Your task to perform on an android device: toggle notification dots Image 0: 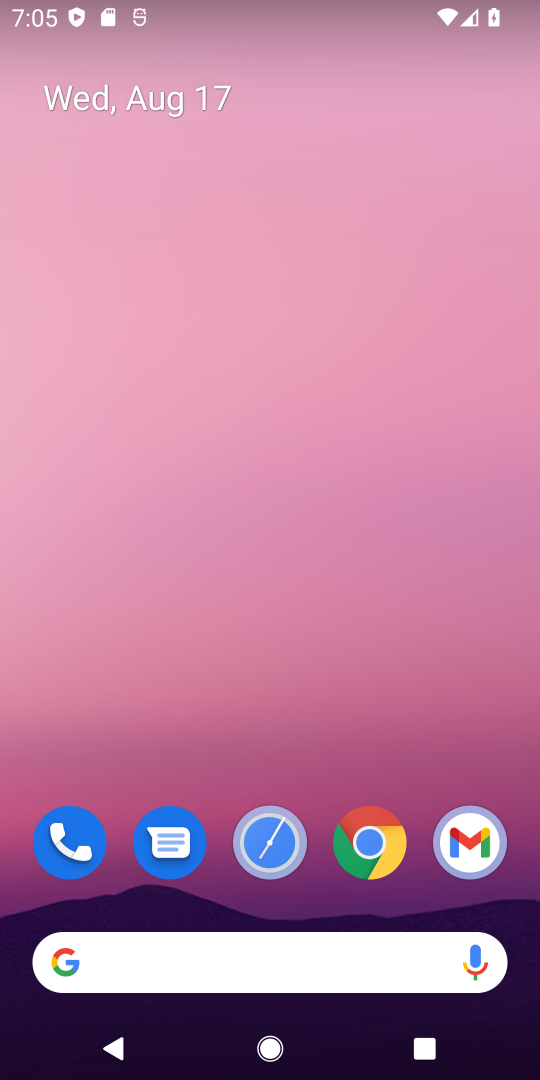
Step 0: drag from (268, 730) to (261, 9)
Your task to perform on an android device: toggle notification dots Image 1: 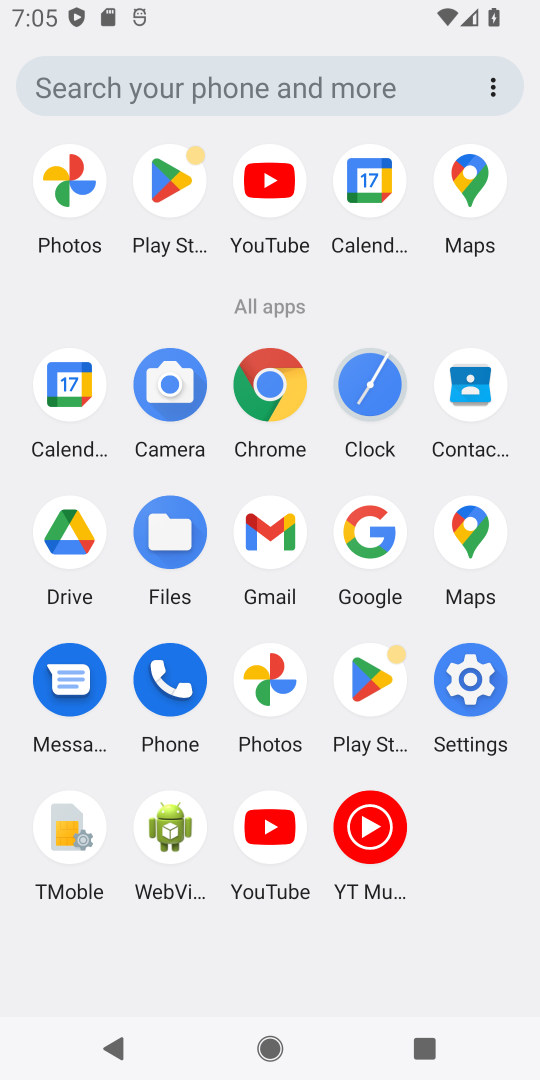
Step 1: click (484, 682)
Your task to perform on an android device: toggle notification dots Image 2: 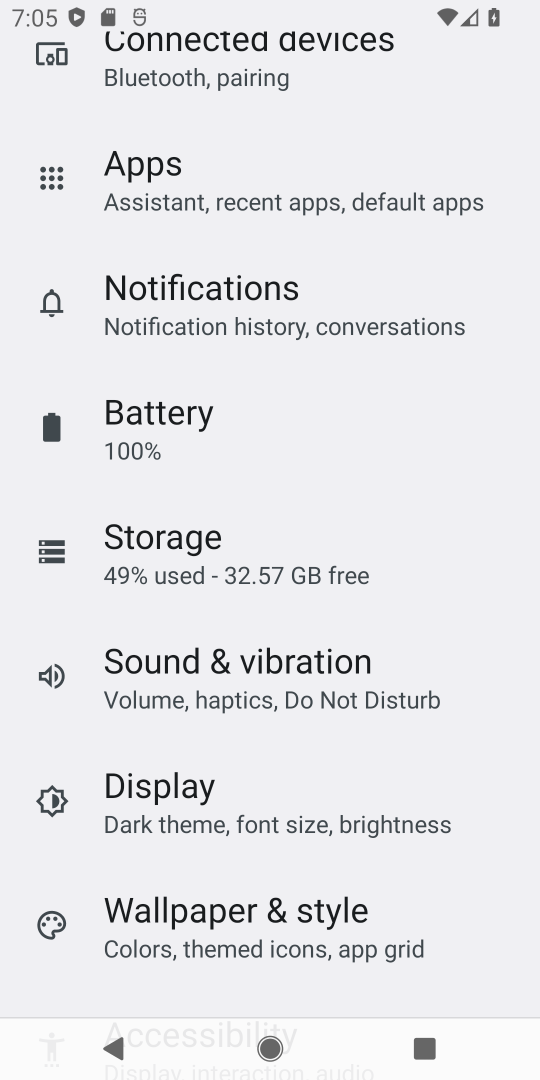
Step 2: click (307, 319)
Your task to perform on an android device: toggle notification dots Image 3: 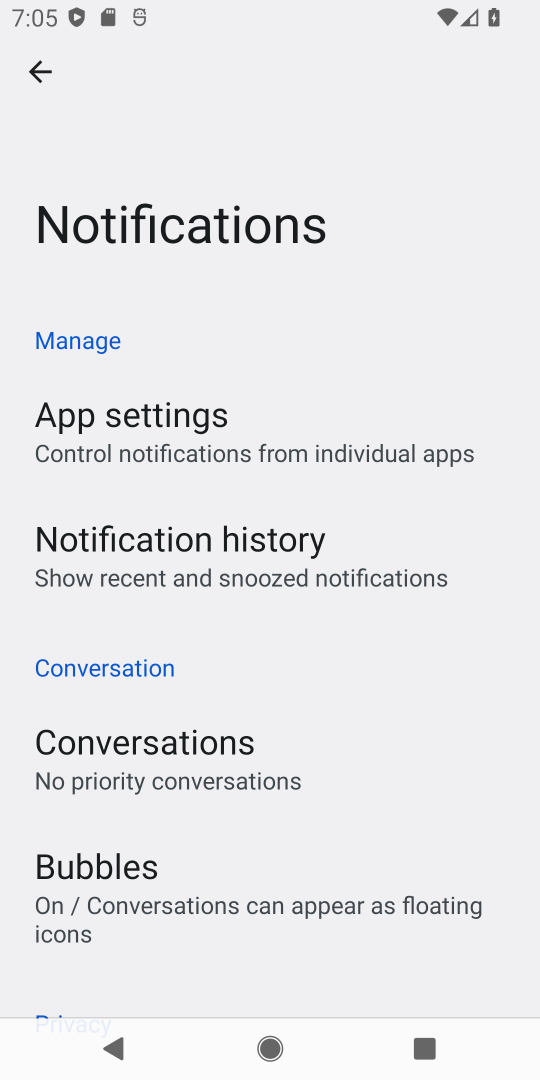
Step 3: drag from (325, 811) to (265, 98)
Your task to perform on an android device: toggle notification dots Image 4: 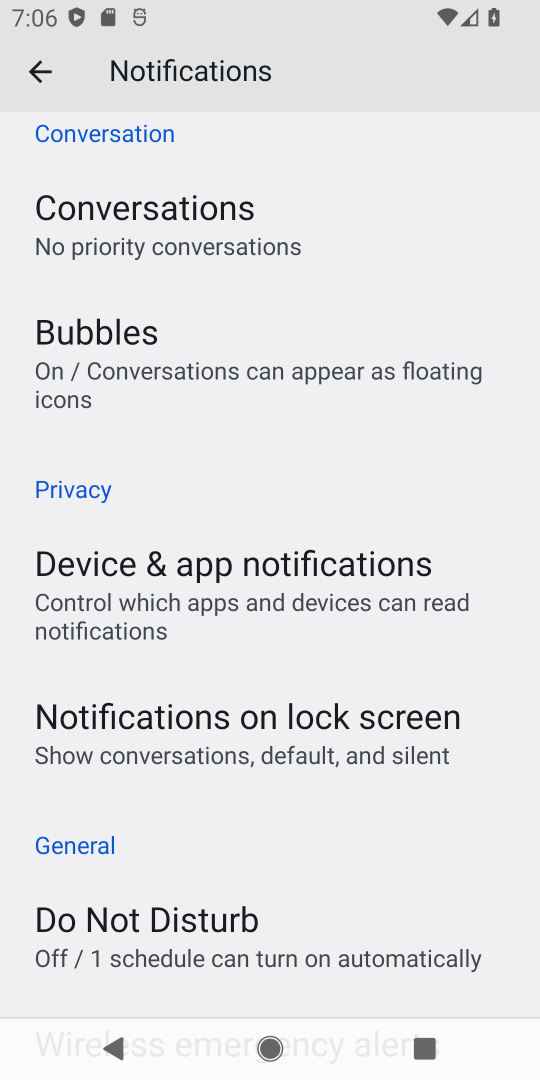
Step 4: drag from (238, 762) to (256, 116)
Your task to perform on an android device: toggle notification dots Image 5: 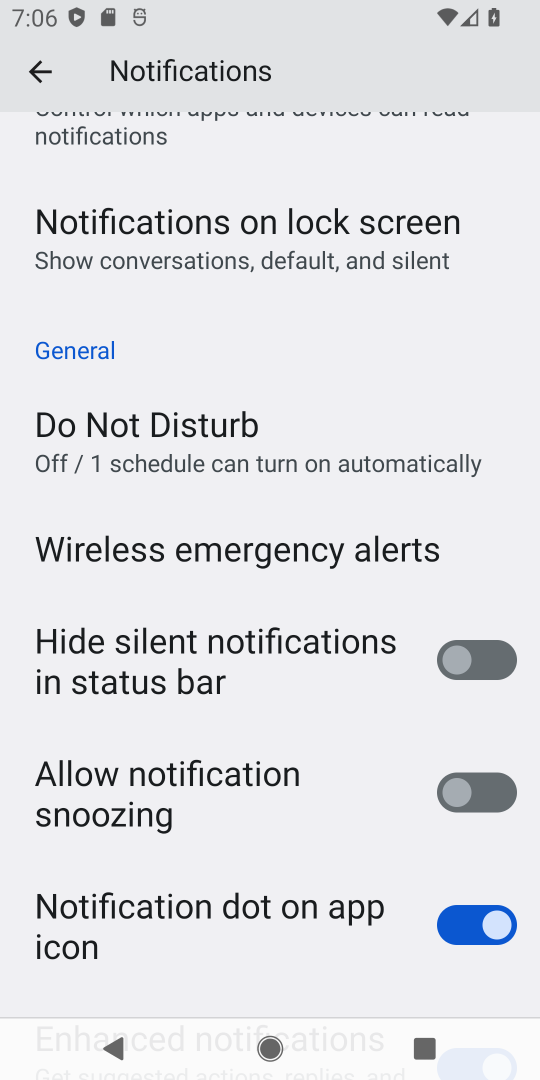
Step 5: click (480, 916)
Your task to perform on an android device: toggle notification dots Image 6: 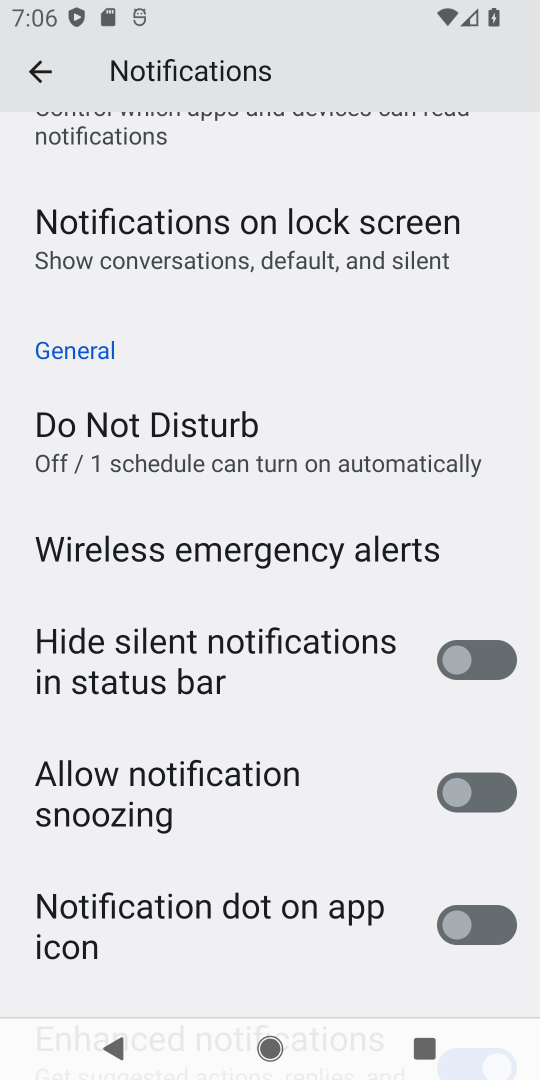
Step 6: task complete